Your task to perform on an android device: change notifications settings Image 0: 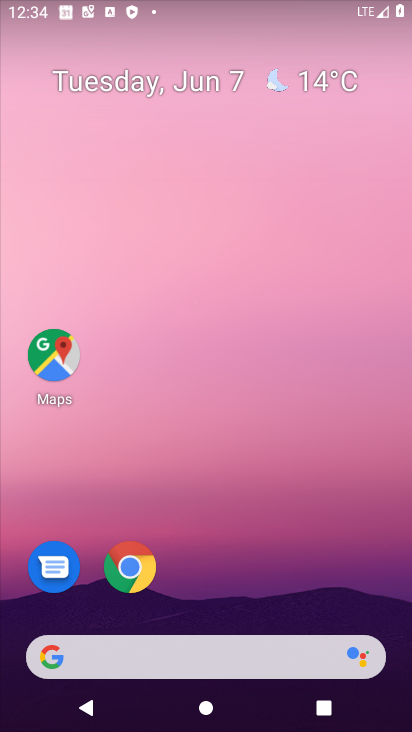
Step 0: drag from (304, 661) to (292, 108)
Your task to perform on an android device: change notifications settings Image 1: 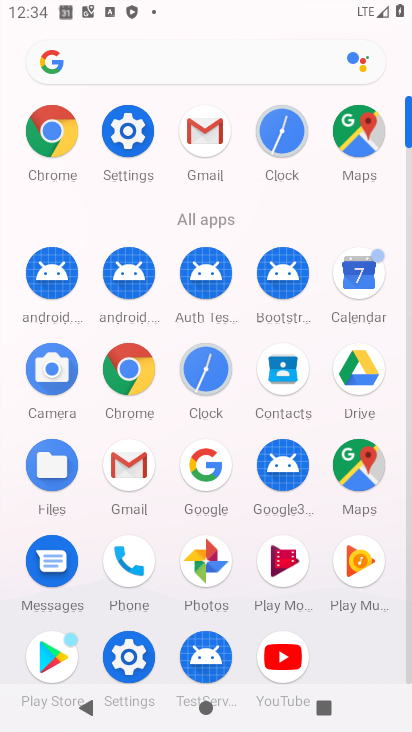
Step 1: click (124, 136)
Your task to perform on an android device: change notifications settings Image 2: 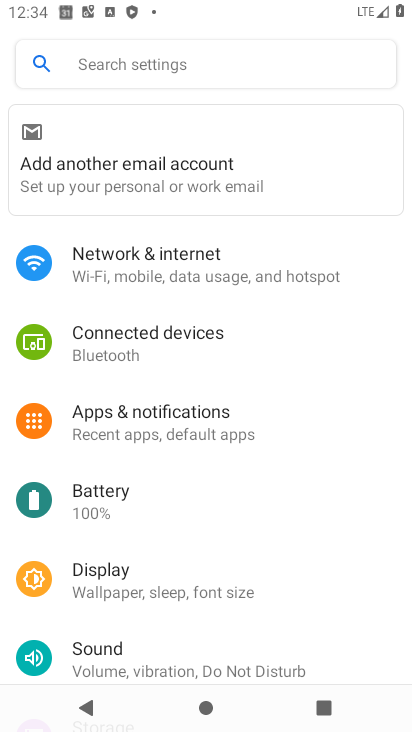
Step 2: click (218, 408)
Your task to perform on an android device: change notifications settings Image 3: 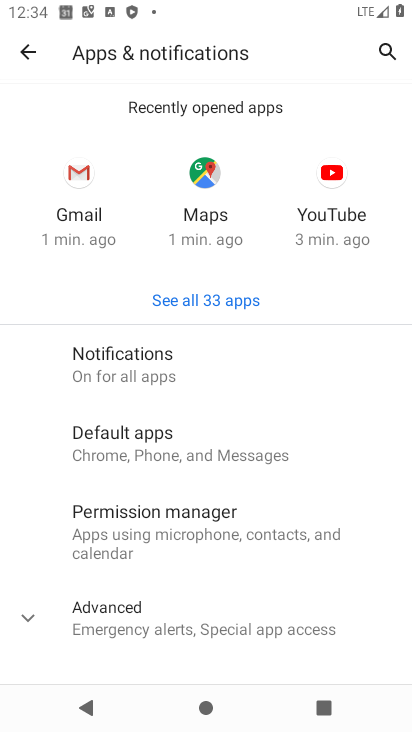
Step 3: click (190, 371)
Your task to perform on an android device: change notifications settings Image 4: 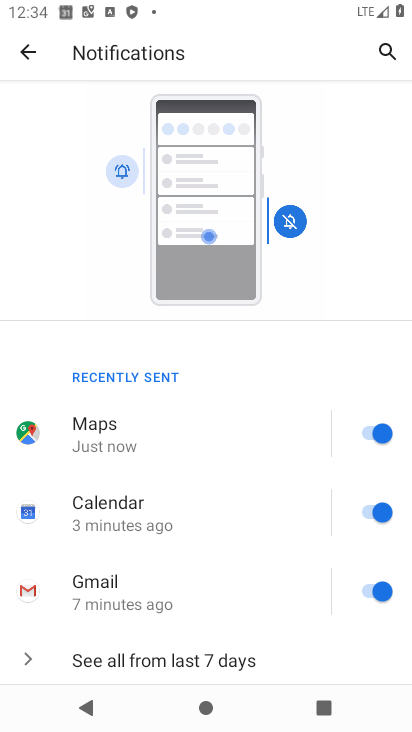
Step 4: task complete